Your task to perform on an android device: turn on javascript in the chrome app Image 0: 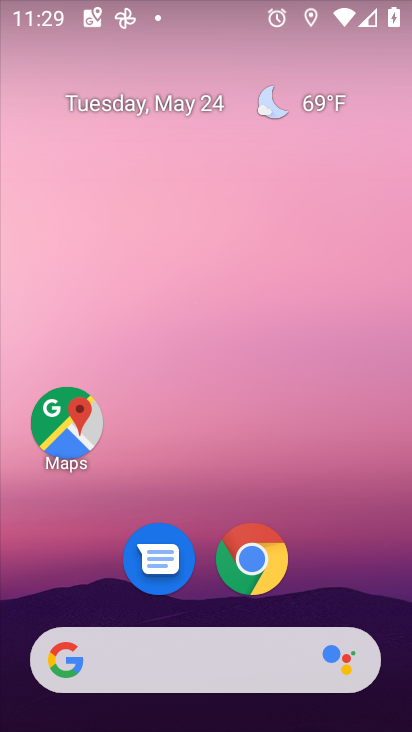
Step 0: drag from (393, 645) to (338, 33)
Your task to perform on an android device: turn on javascript in the chrome app Image 1: 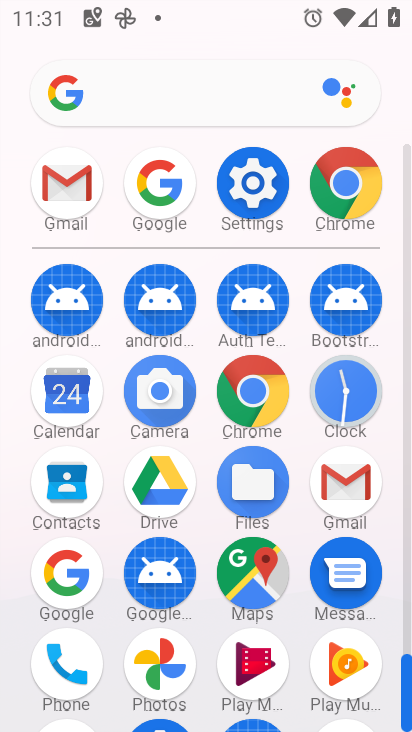
Step 1: click (338, 191)
Your task to perform on an android device: turn on javascript in the chrome app Image 2: 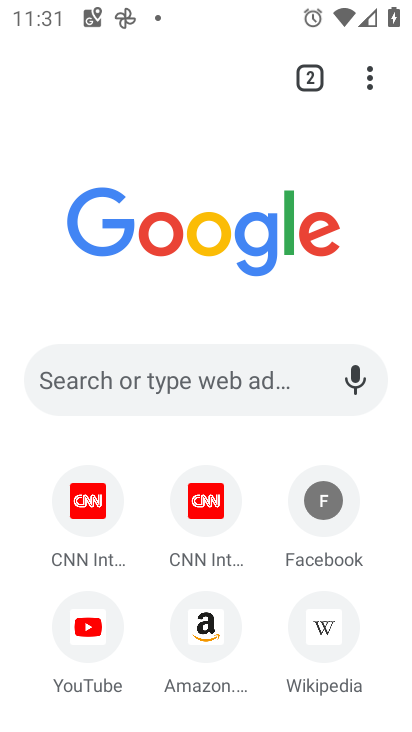
Step 2: click (372, 78)
Your task to perform on an android device: turn on javascript in the chrome app Image 3: 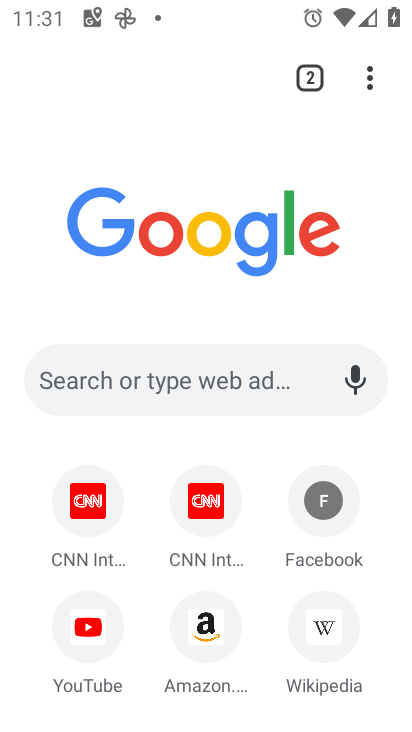
Step 3: click (367, 65)
Your task to perform on an android device: turn on javascript in the chrome app Image 4: 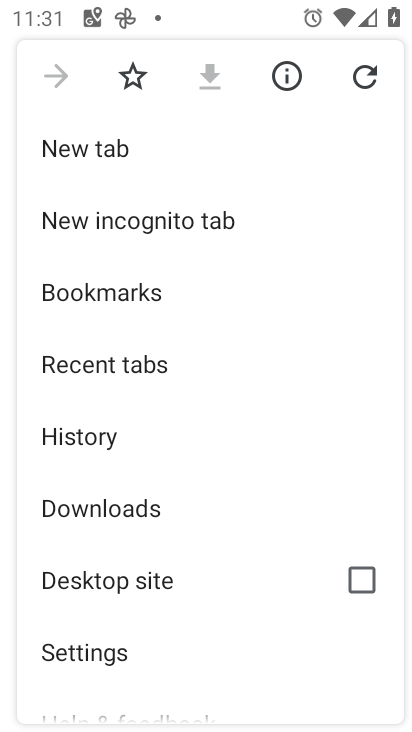
Step 4: drag from (156, 671) to (247, 211)
Your task to perform on an android device: turn on javascript in the chrome app Image 5: 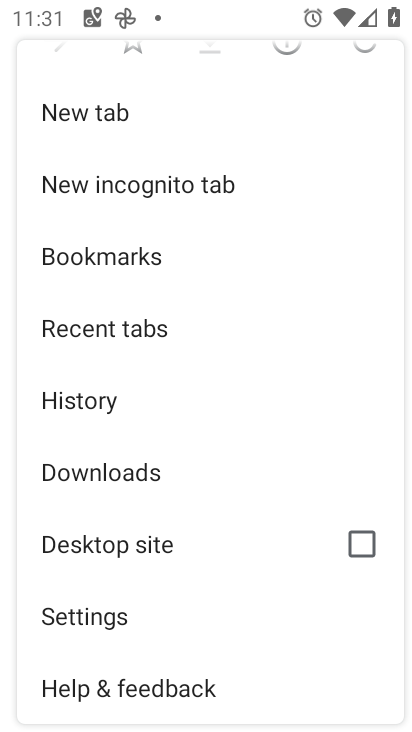
Step 5: click (126, 629)
Your task to perform on an android device: turn on javascript in the chrome app Image 6: 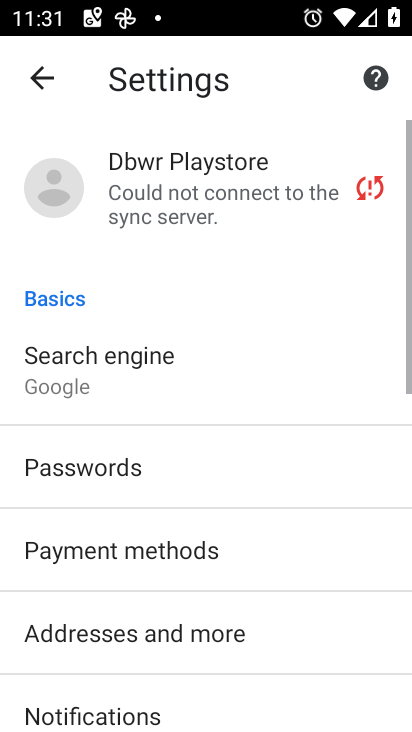
Step 6: drag from (126, 629) to (158, 187)
Your task to perform on an android device: turn on javascript in the chrome app Image 7: 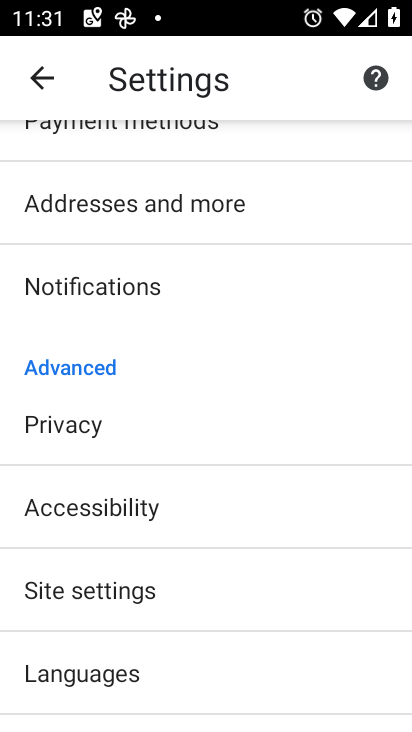
Step 7: click (110, 603)
Your task to perform on an android device: turn on javascript in the chrome app Image 8: 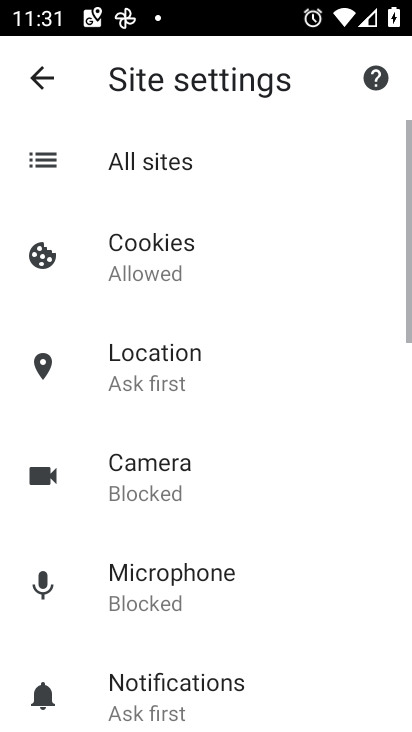
Step 8: drag from (147, 662) to (161, 162)
Your task to perform on an android device: turn on javascript in the chrome app Image 9: 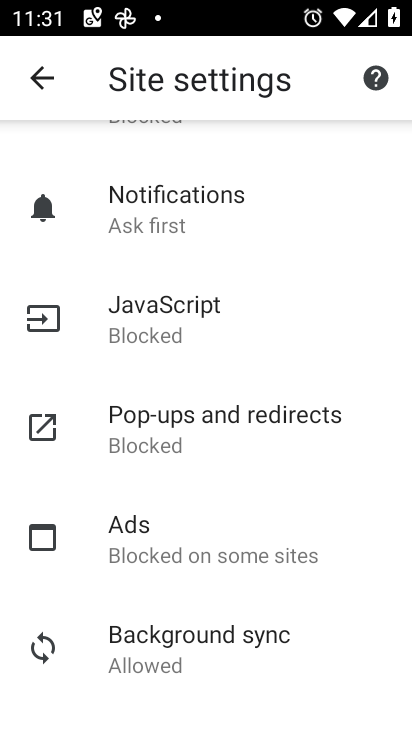
Step 9: click (184, 342)
Your task to perform on an android device: turn on javascript in the chrome app Image 10: 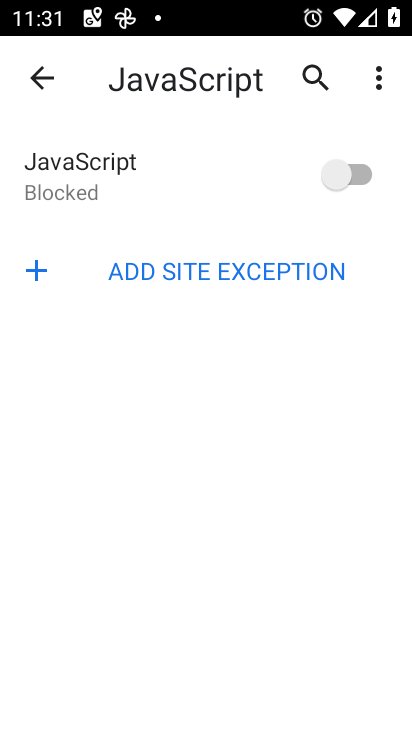
Step 10: click (360, 187)
Your task to perform on an android device: turn on javascript in the chrome app Image 11: 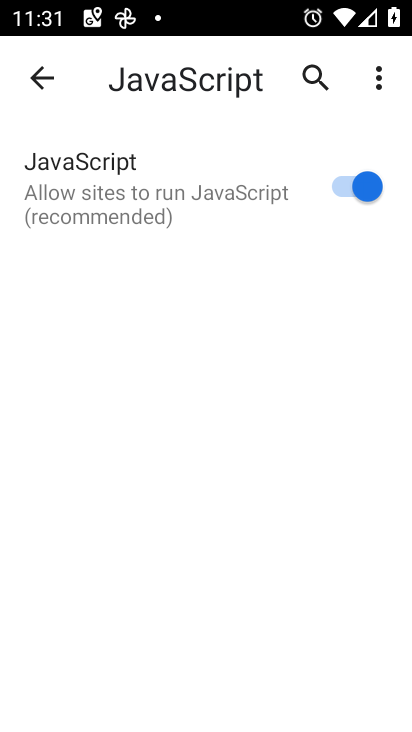
Step 11: task complete